Your task to perform on an android device: Turn on the flashlight Image 0: 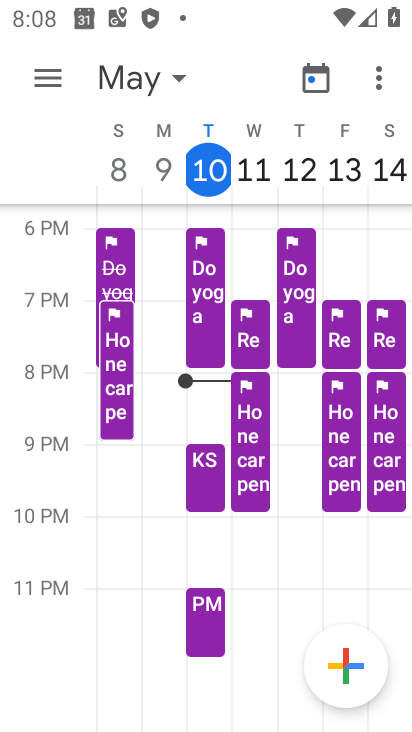
Step 0: press home button
Your task to perform on an android device: Turn on the flashlight Image 1: 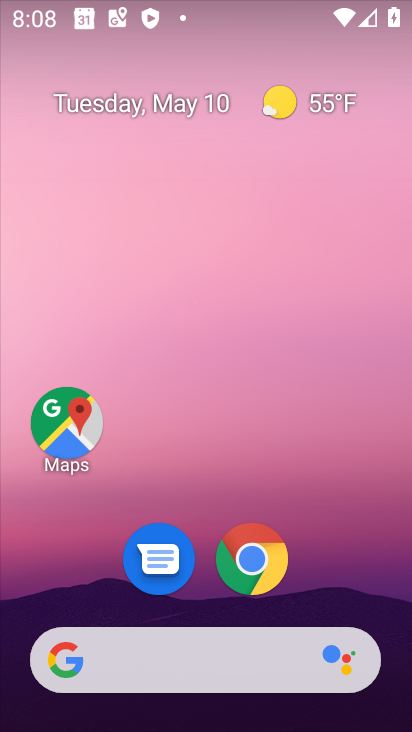
Step 1: drag from (227, 727) to (193, 291)
Your task to perform on an android device: Turn on the flashlight Image 2: 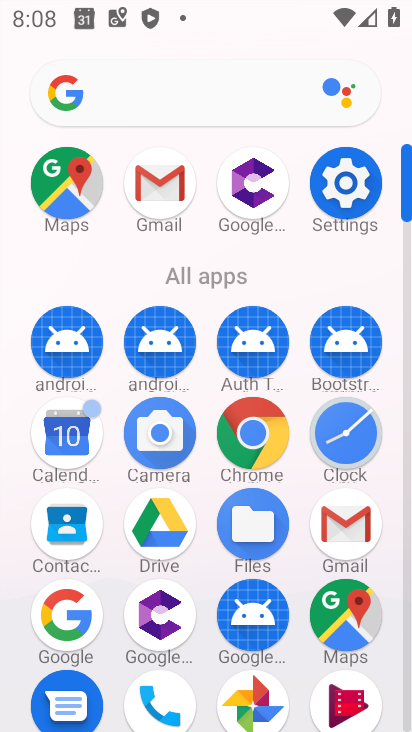
Step 2: click (345, 180)
Your task to perform on an android device: Turn on the flashlight Image 3: 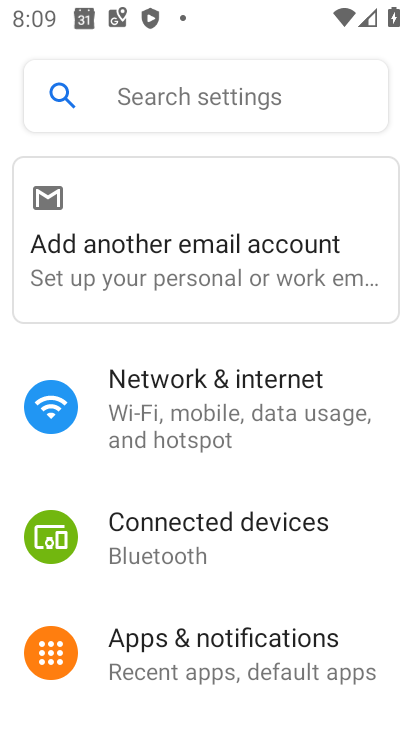
Step 3: task complete